Your task to perform on an android device: Go to sound settings Image 0: 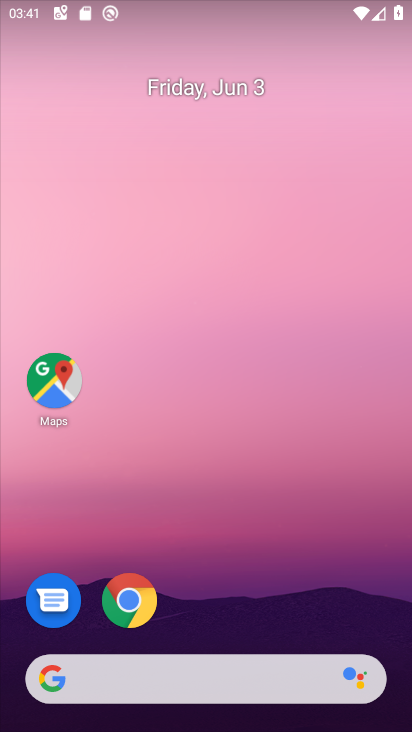
Step 0: drag from (221, 594) to (249, 182)
Your task to perform on an android device: Go to sound settings Image 1: 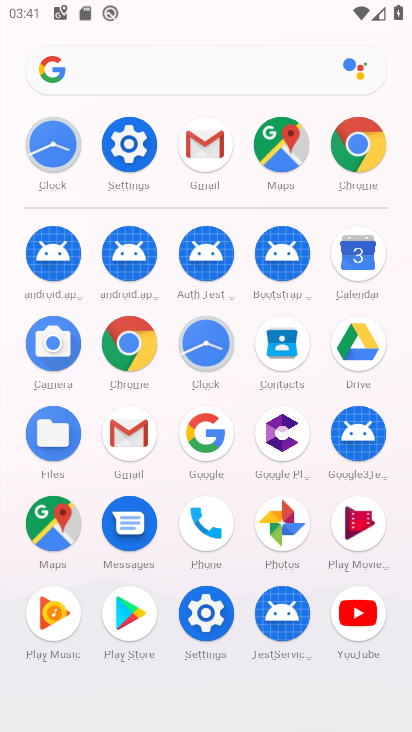
Step 1: click (186, 158)
Your task to perform on an android device: Go to sound settings Image 2: 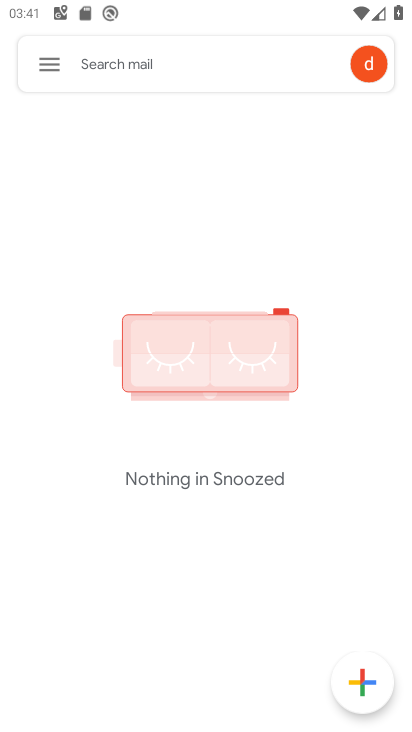
Step 2: press home button
Your task to perform on an android device: Go to sound settings Image 3: 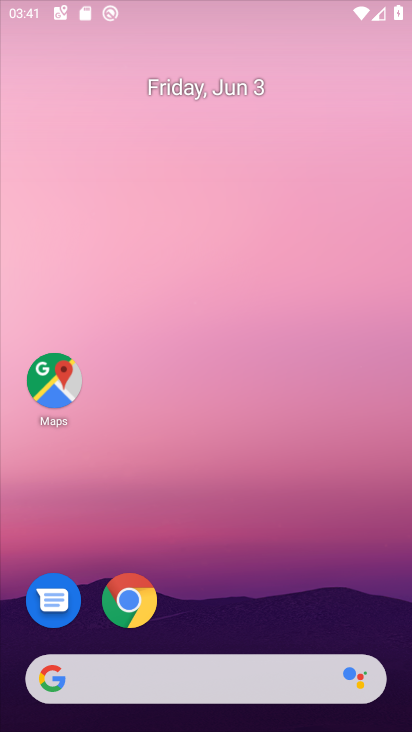
Step 3: drag from (330, 570) to (332, 69)
Your task to perform on an android device: Go to sound settings Image 4: 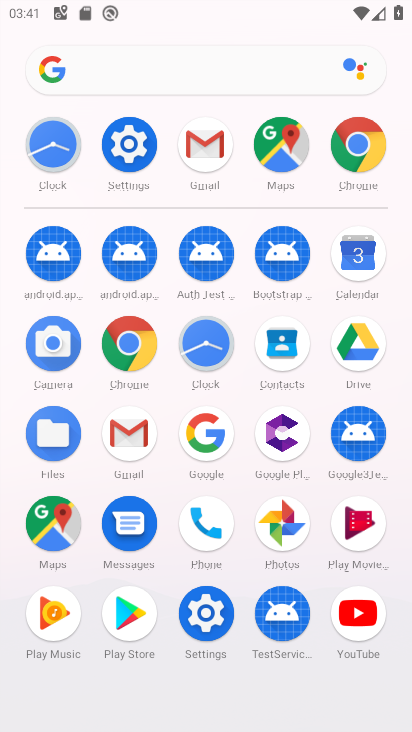
Step 4: click (134, 137)
Your task to perform on an android device: Go to sound settings Image 5: 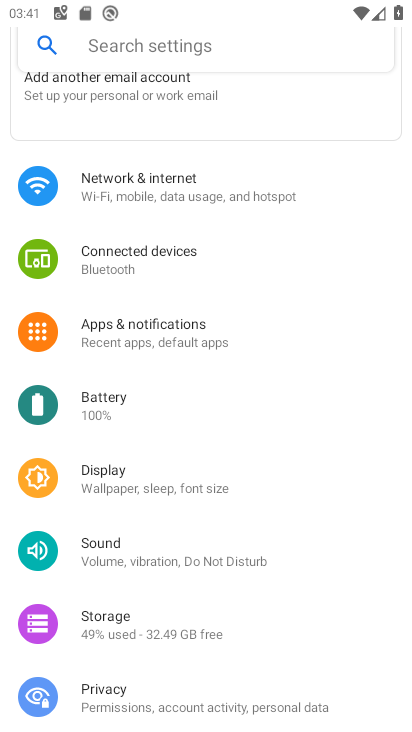
Step 5: drag from (190, 534) to (226, 116)
Your task to perform on an android device: Go to sound settings Image 6: 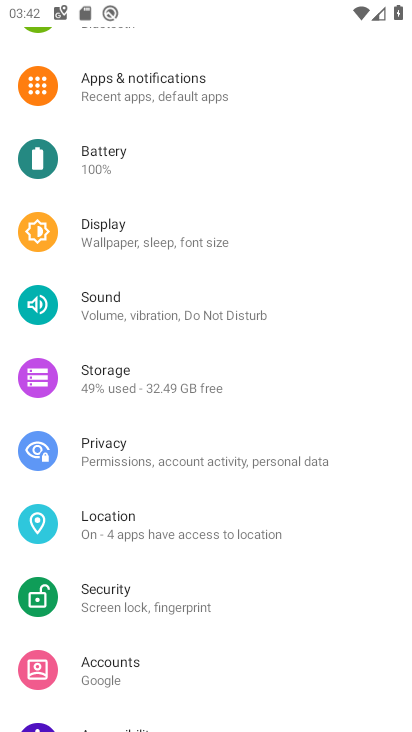
Step 6: click (115, 317)
Your task to perform on an android device: Go to sound settings Image 7: 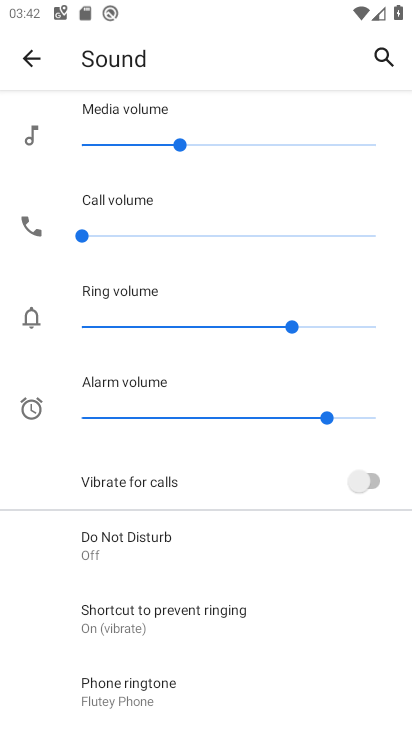
Step 7: task complete